Your task to perform on an android device: Search for Italian restaurants on Maps Image 0: 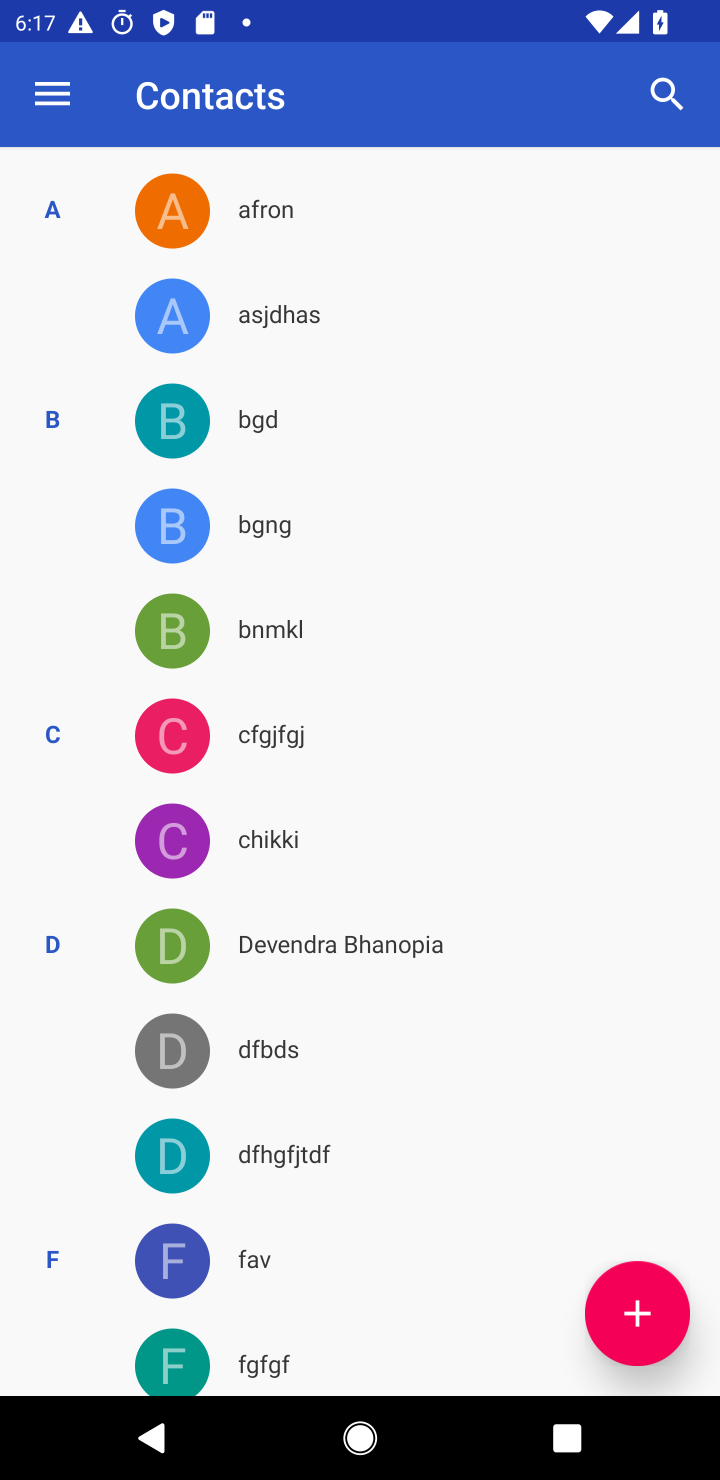
Step 0: press home button
Your task to perform on an android device: Search for Italian restaurants on Maps Image 1: 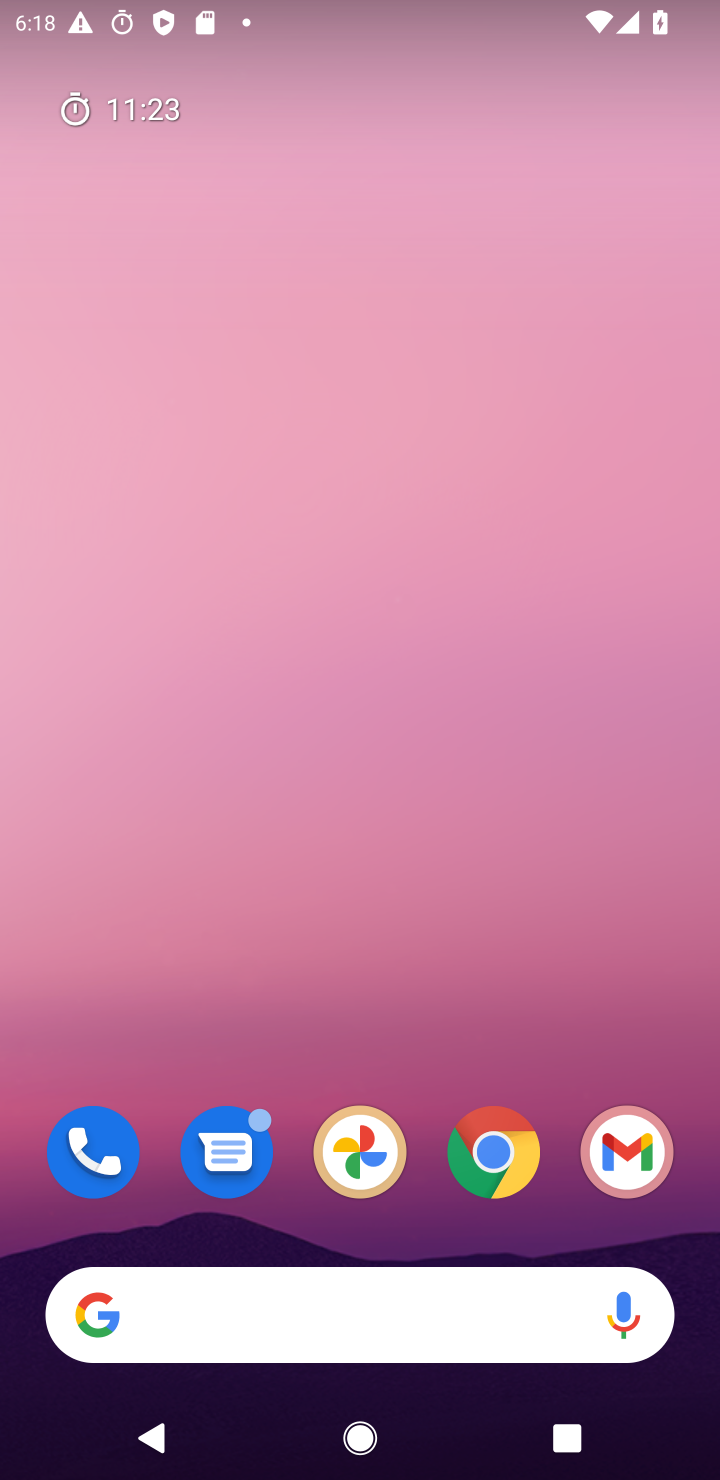
Step 1: drag from (511, 918) to (449, 144)
Your task to perform on an android device: Search for Italian restaurants on Maps Image 2: 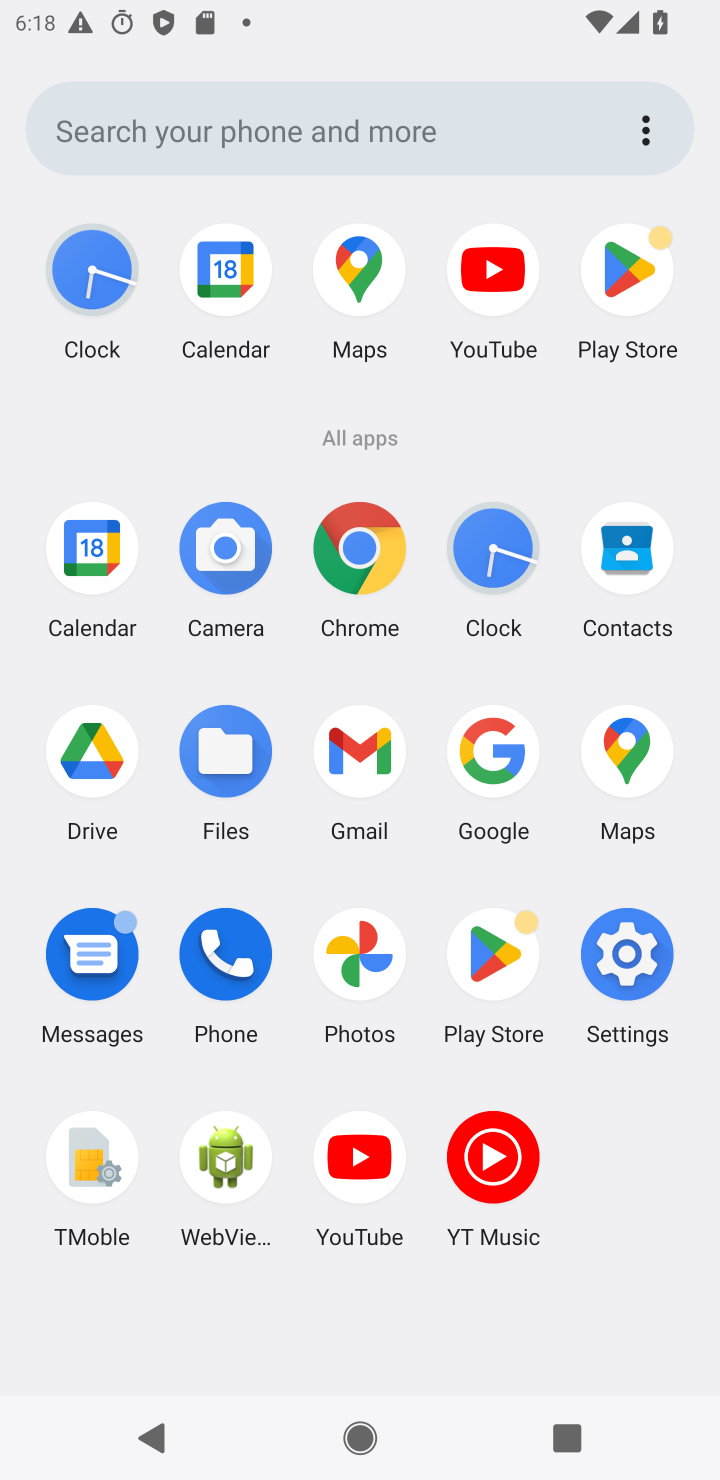
Step 2: click (643, 727)
Your task to perform on an android device: Search for Italian restaurants on Maps Image 3: 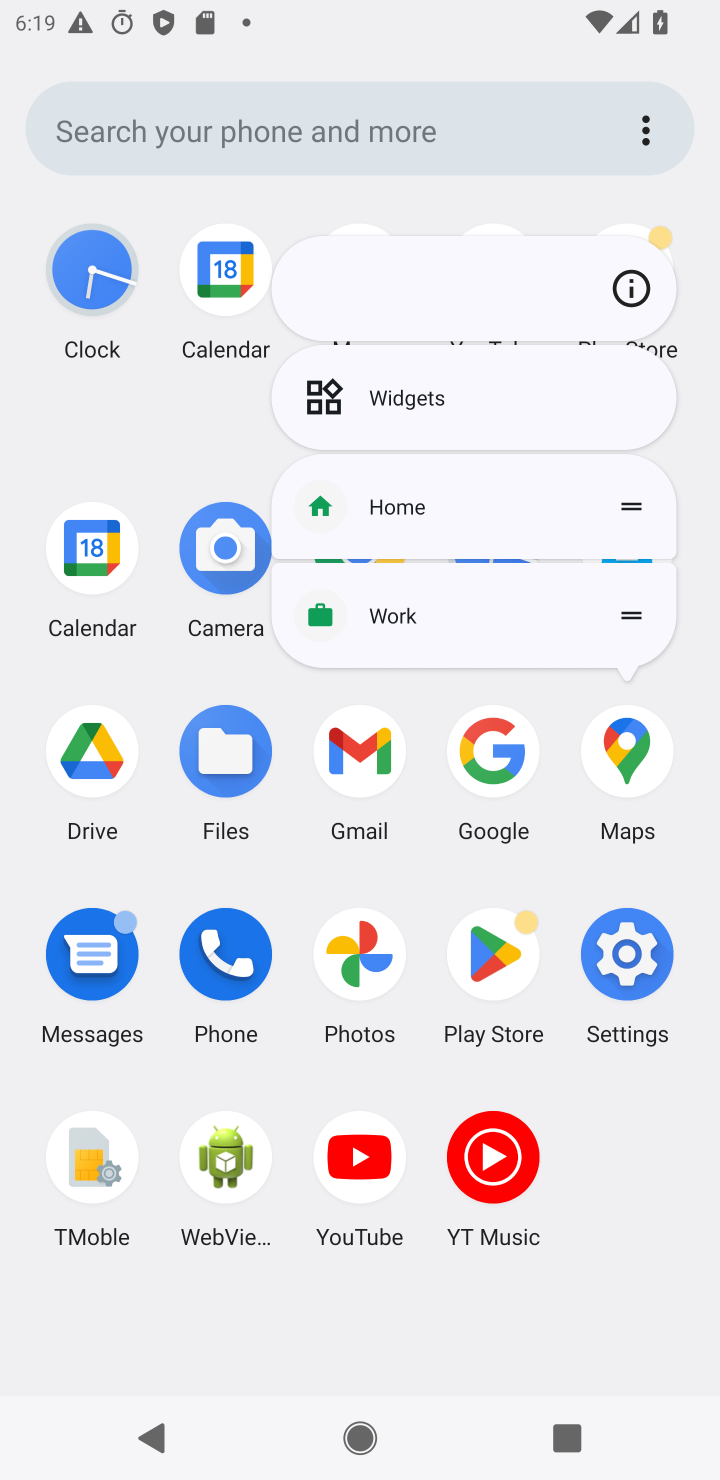
Step 3: click (633, 734)
Your task to perform on an android device: Search for Italian restaurants on Maps Image 4: 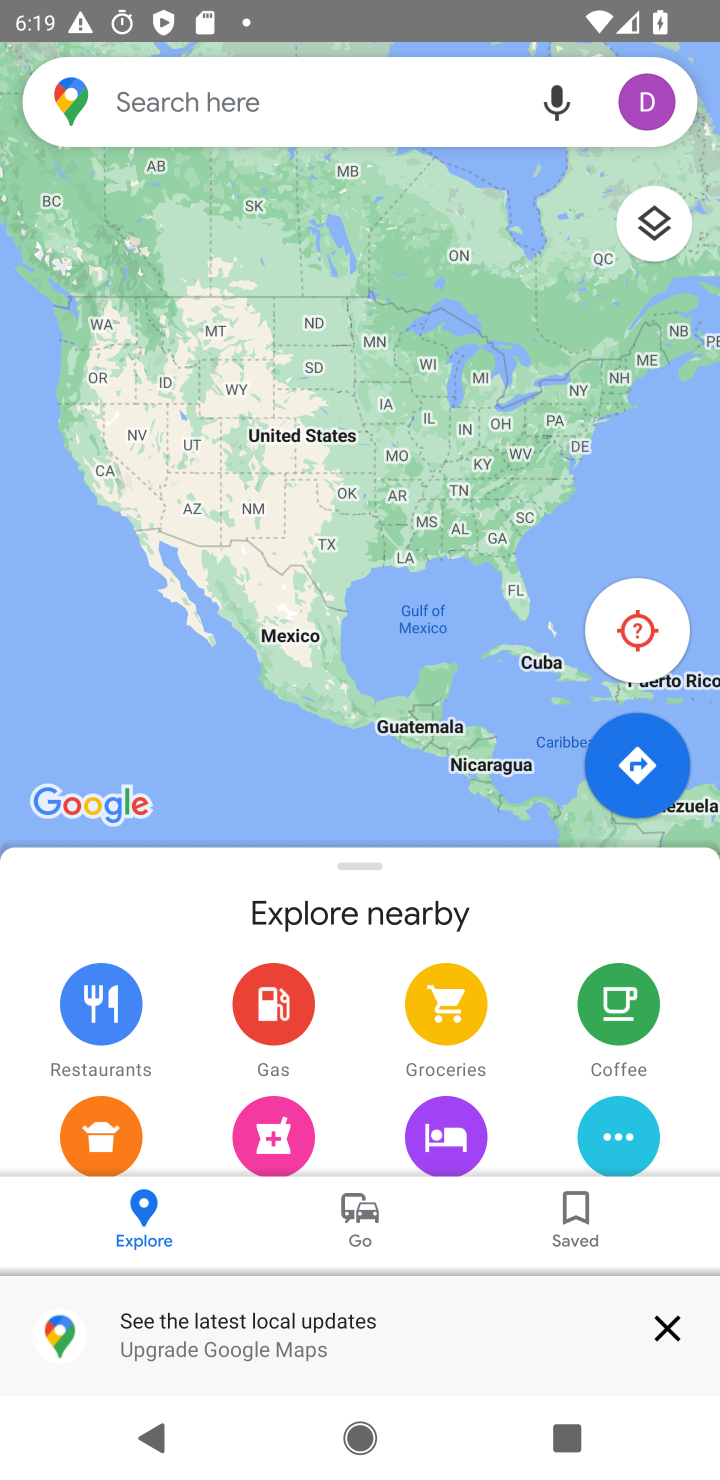
Step 4: click (224, 116)
Your task to perform on an android device: Search for Italian restaurants on Maps Image 5: 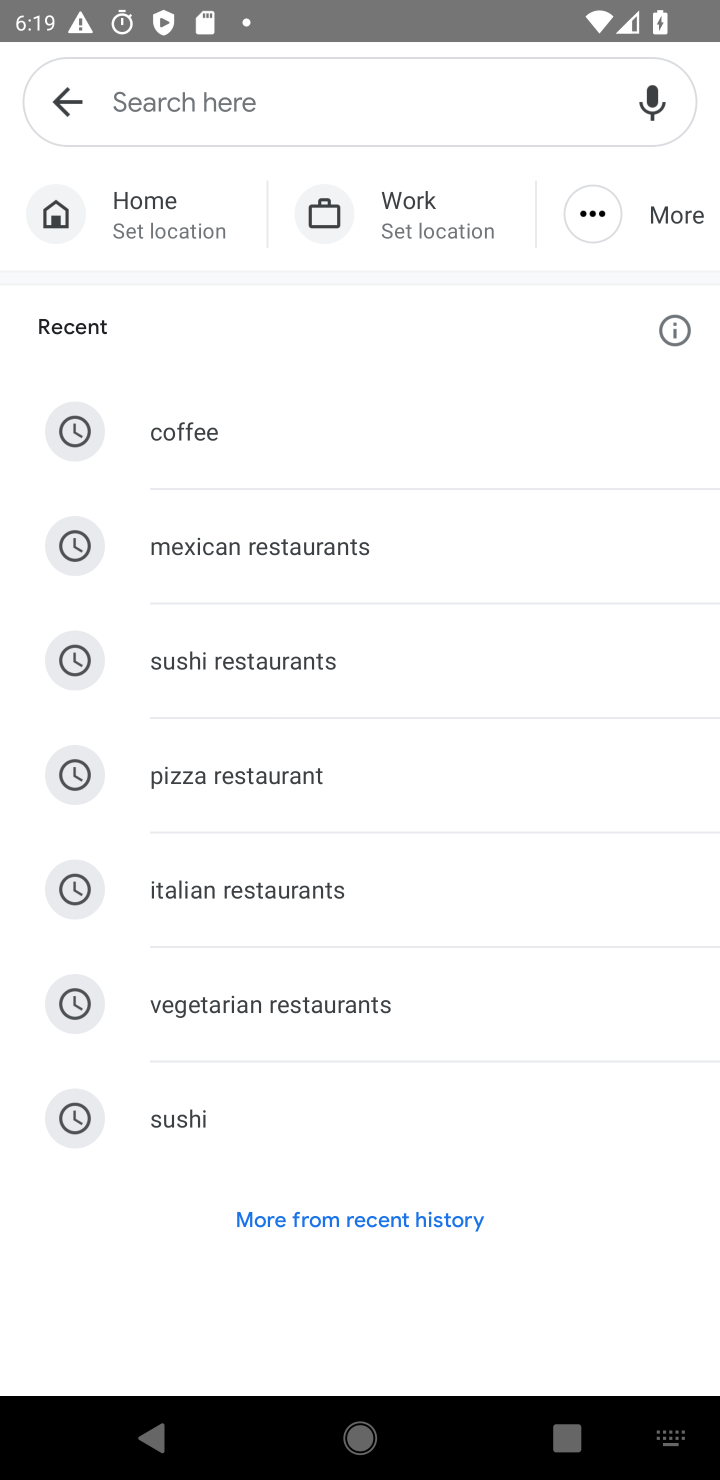
Step 5: type " Italian restaurants"
Your task to perform on an android device: Search for Italian restaurants on Maps Image 6: 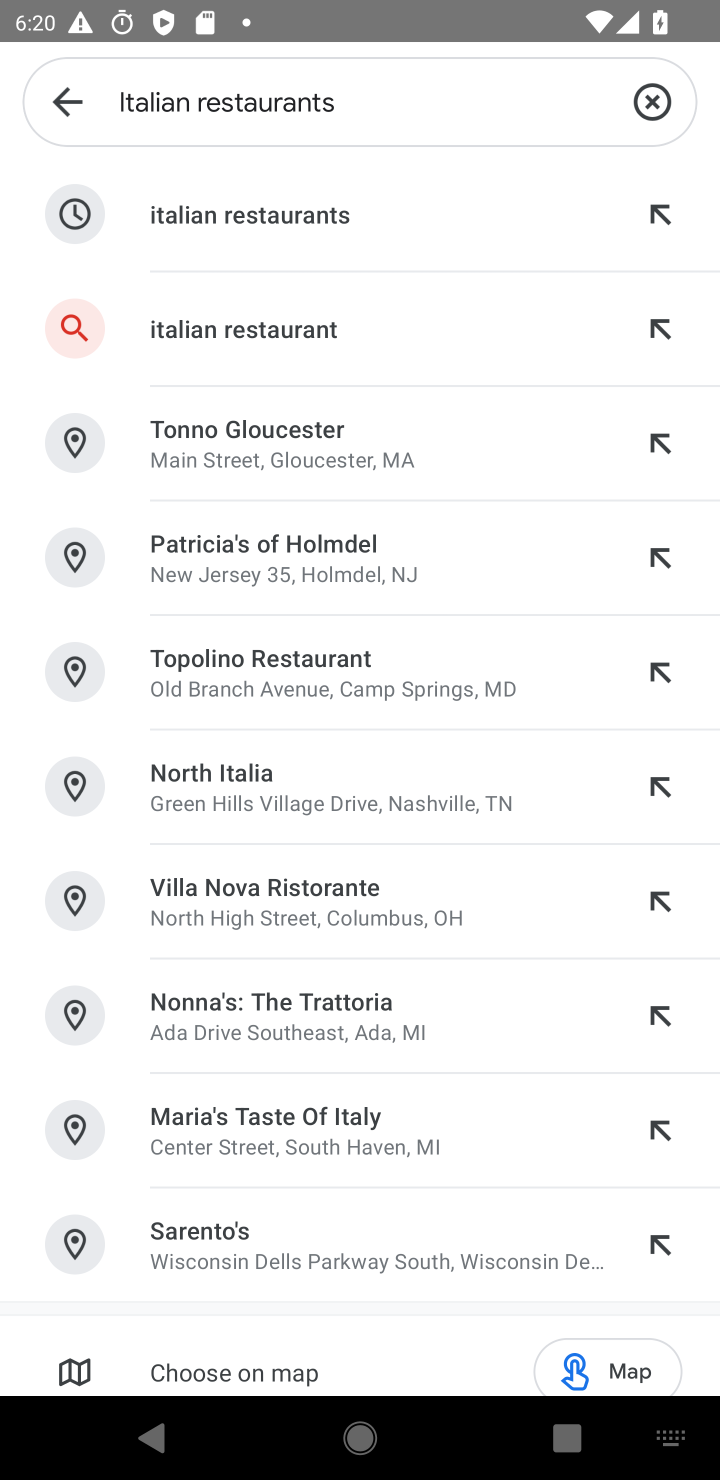
Step 6: click (287, 220)
Your task to perform on an android device: Search for Italian restaurants on Maps Image 7: 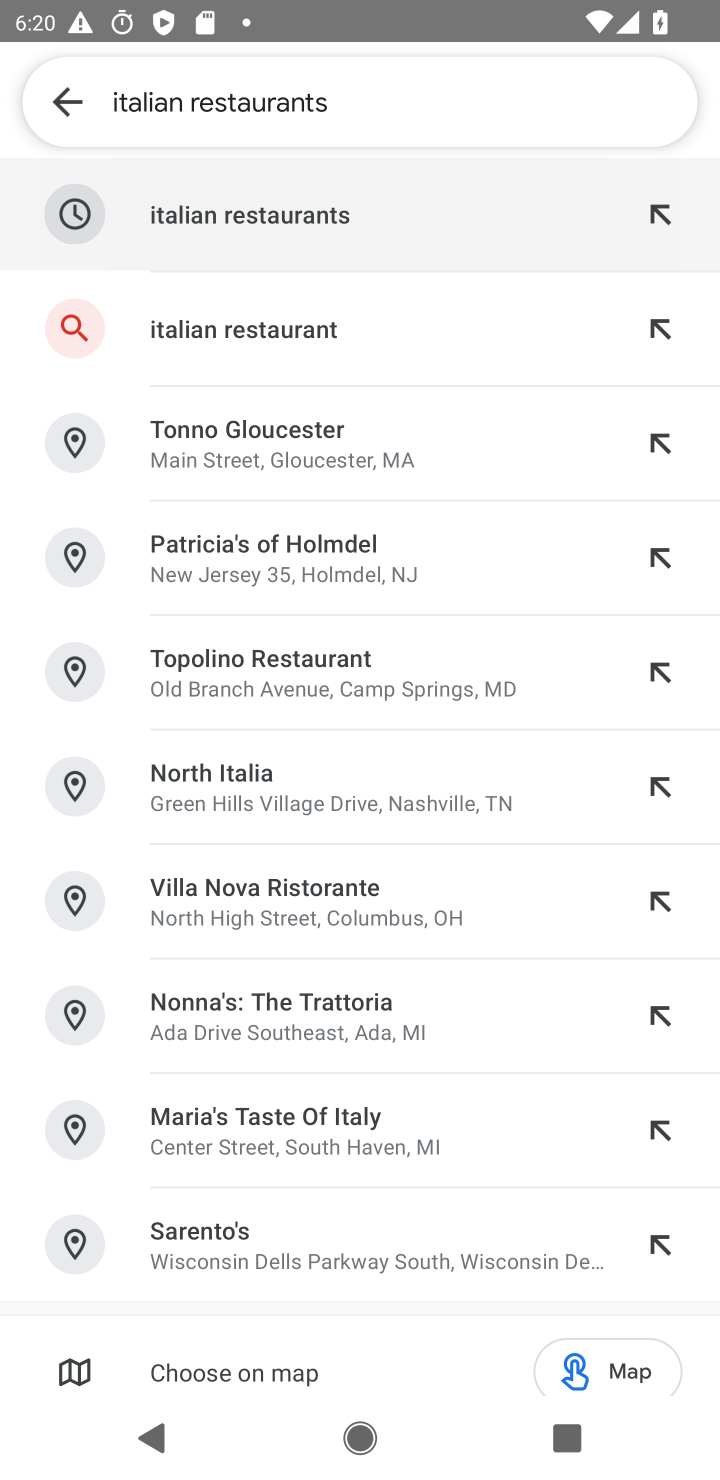
Step 7: task complete